Your task to perform on an android device: all mails in gmail Image 0: 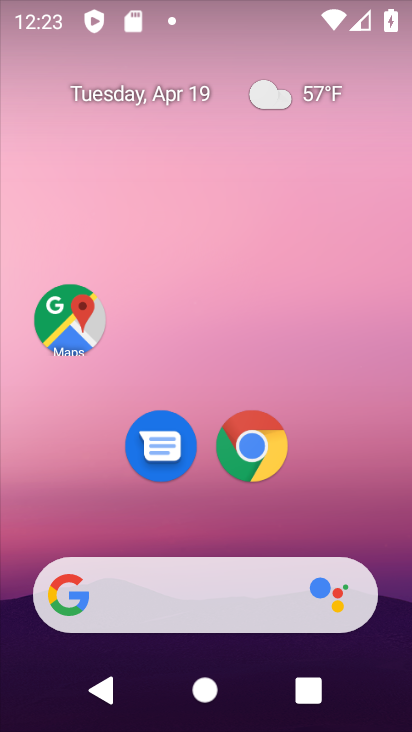
Step 0: drag from (324, 467) to (376, 86)
Your task to perform on an android device: all mails in gmail Image 1: 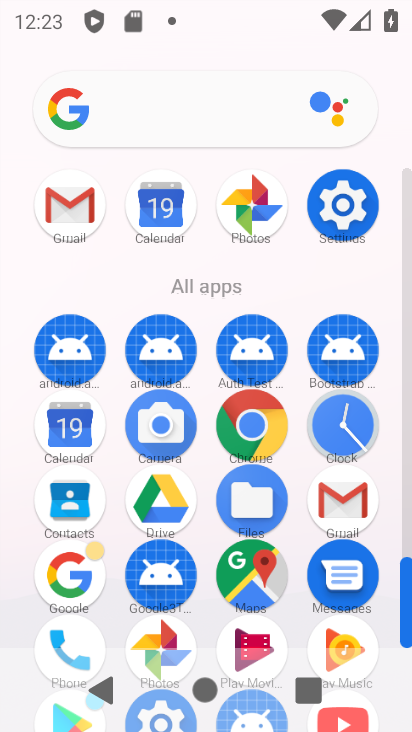
Step 1: click (343, 501)
Your task to perform on an android device: all mails in gmail Image 2: 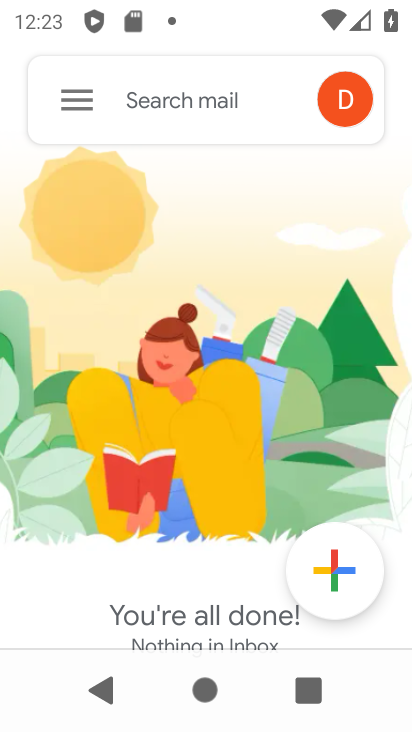
Step 2: click (77, 102)
Your task to perform on an android device: all mails in gmail Image 3: 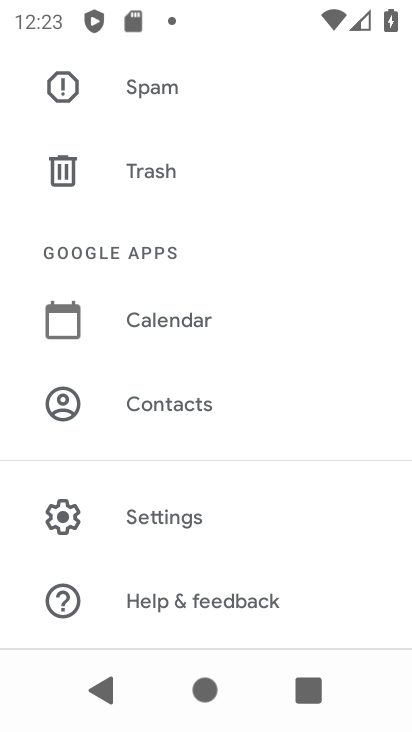
Step 3: drag from (258, 139) to (254, 545)
Your task to perform on an android device: all mails in gmail Image 4: 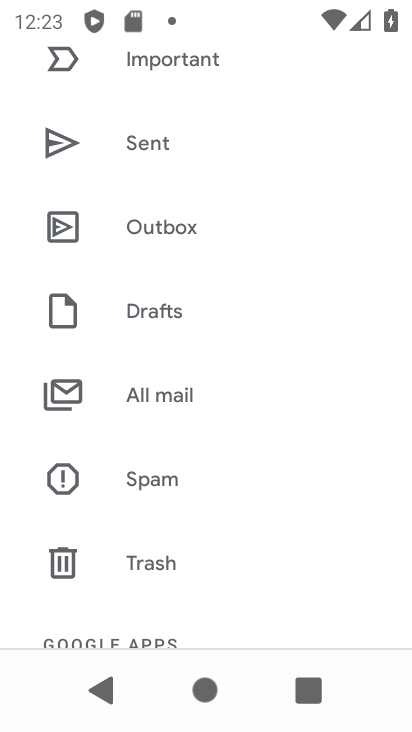
Step 4: click (192, 392)
Your task to perform on an android device: all mails in gmail Image 5: 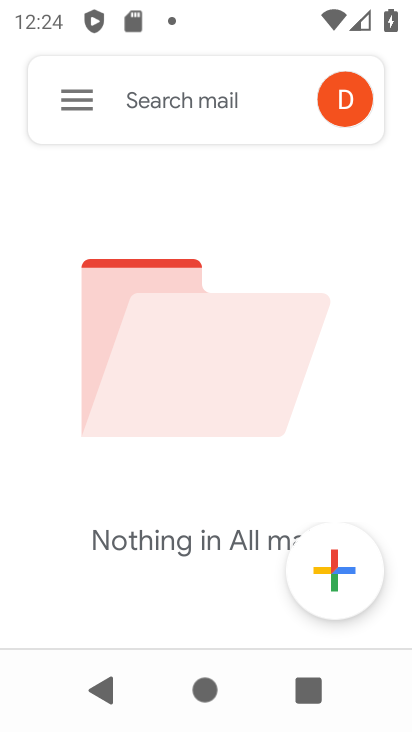
Step 5: task complete